Your task to perform on an android device: search for starred emails in the gmail app Image 0: 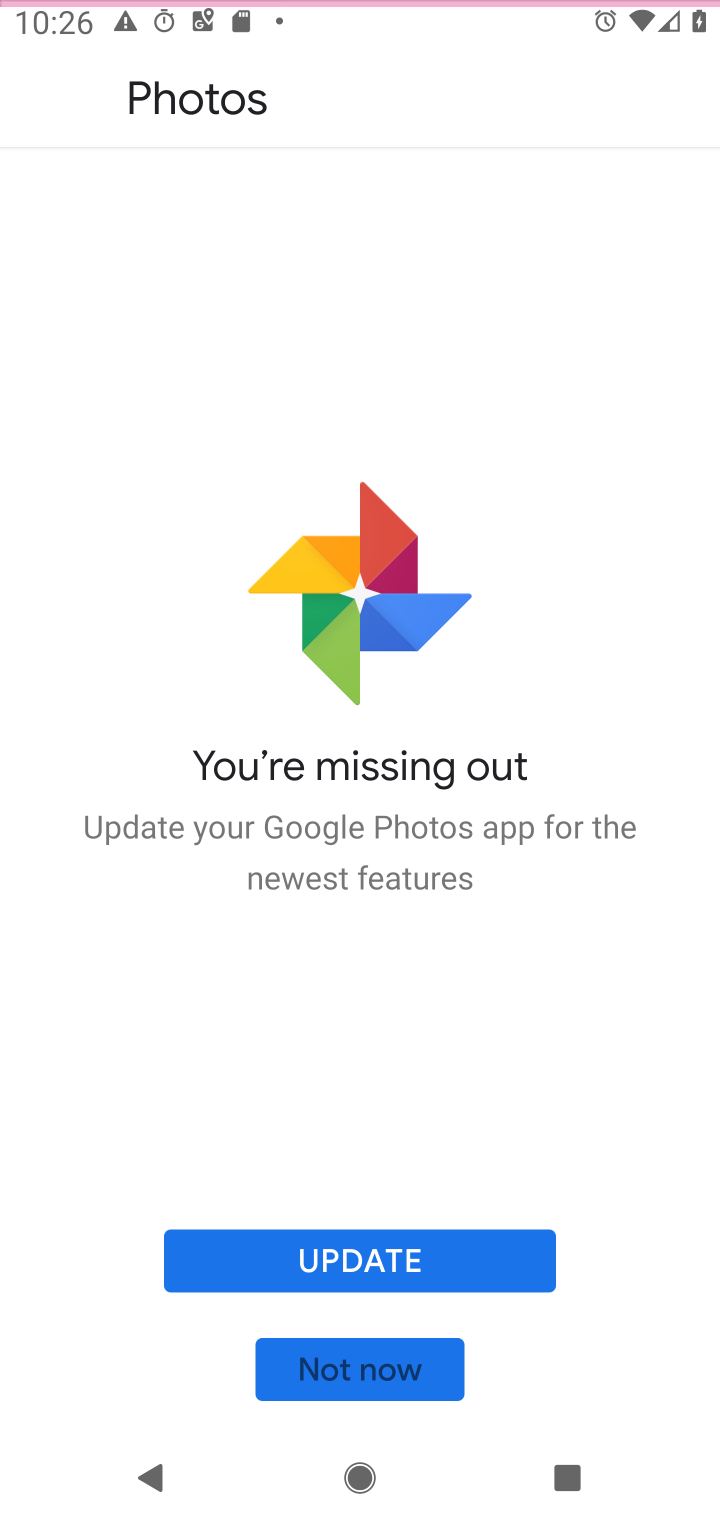
Step 0: press home button
Your task to perform on an android device: search for starred emails in the gmail app Image 1: 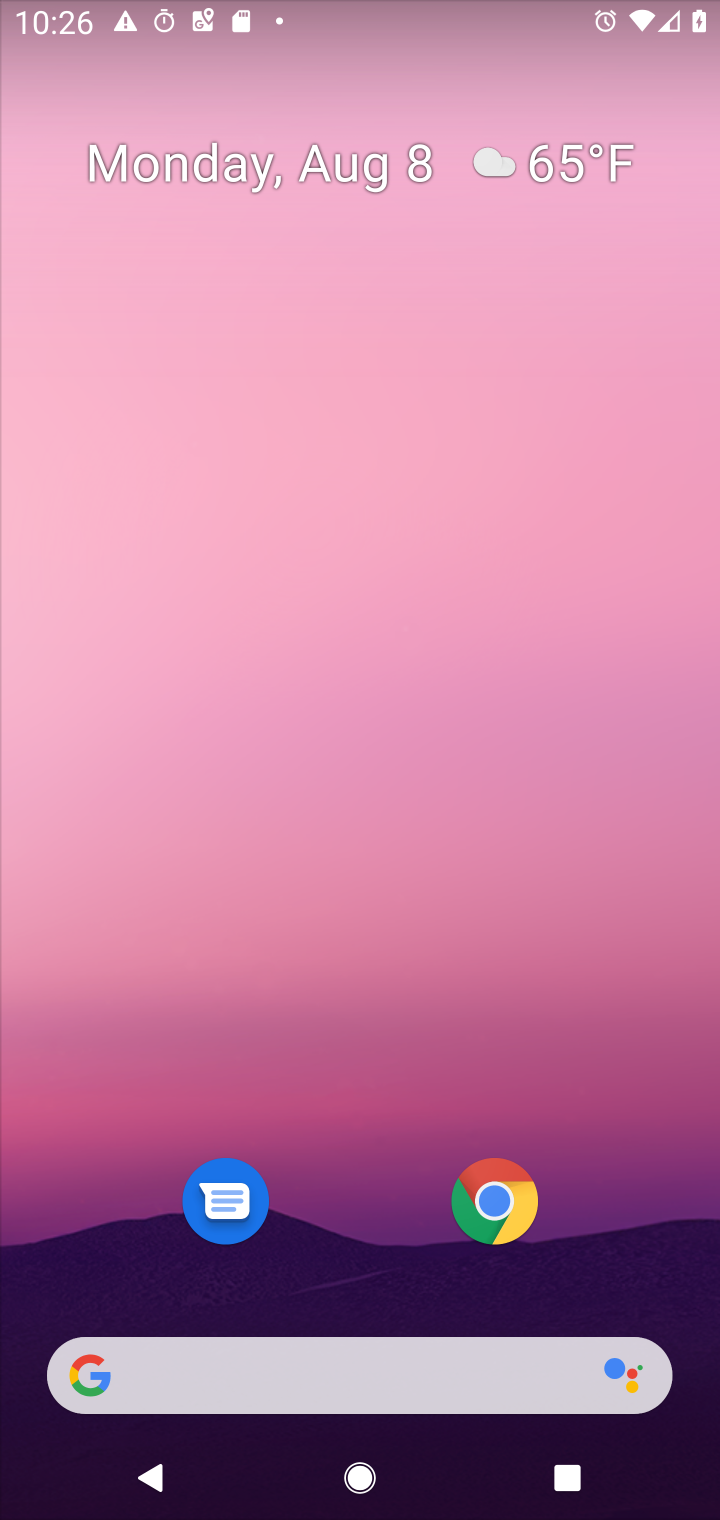
Step 1: drag from (617, 1236) to (582, 316)
Your task to perform on an android device: search for starred emails in the gmail app Image 2: 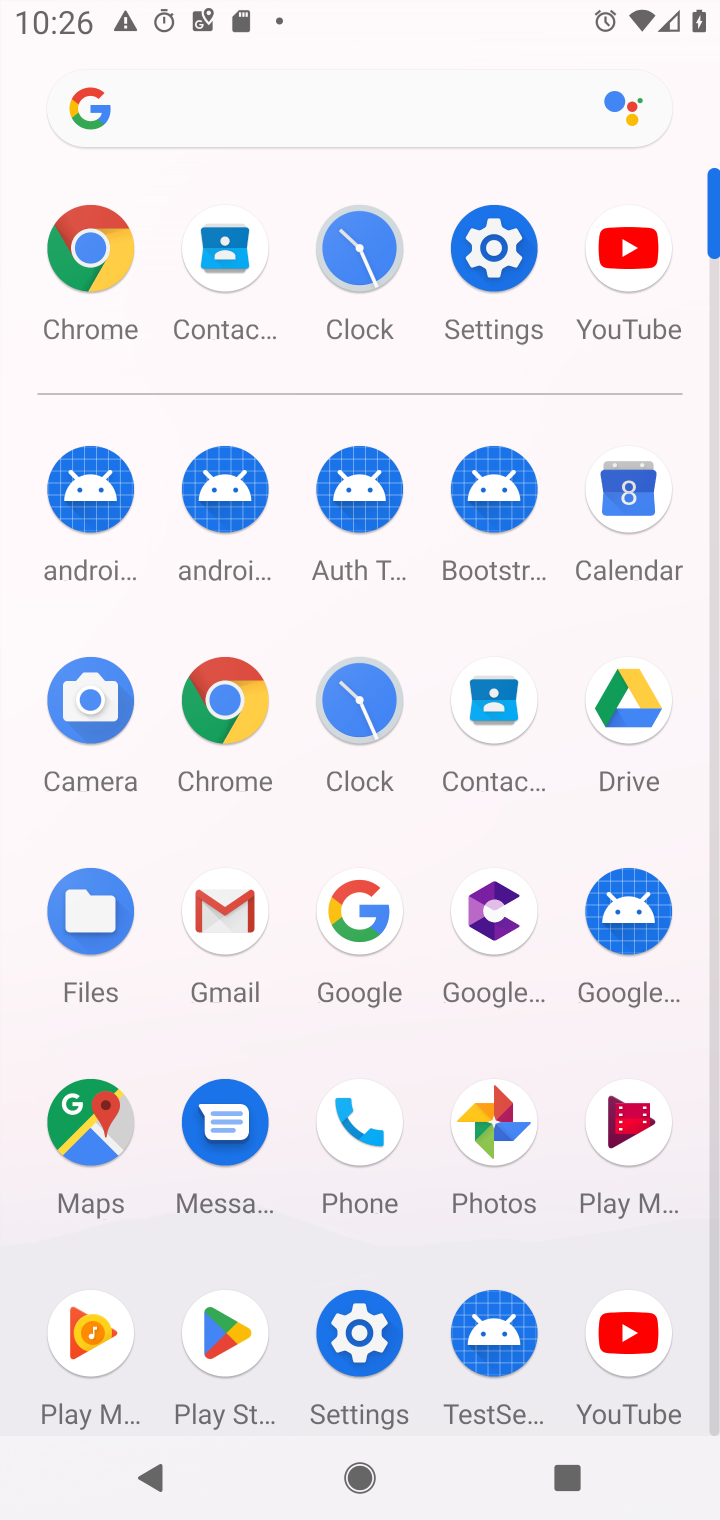
Step 2: click (221, 924)
Your task to perform on an android device: search for starred emails in the gmail app Image 3: 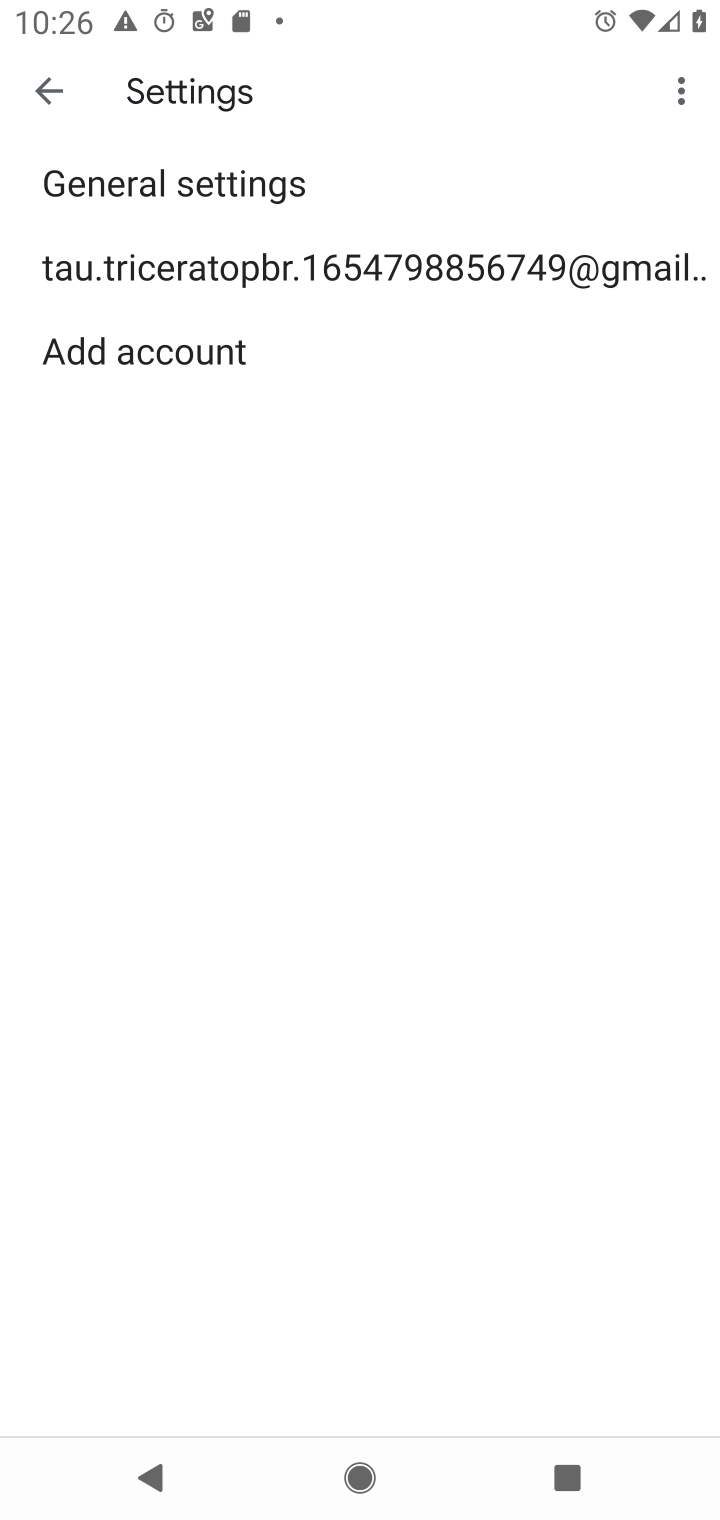
Step 3: press back button
Your task to perform on an android device: search for starred emails in the gmail app Image 4: 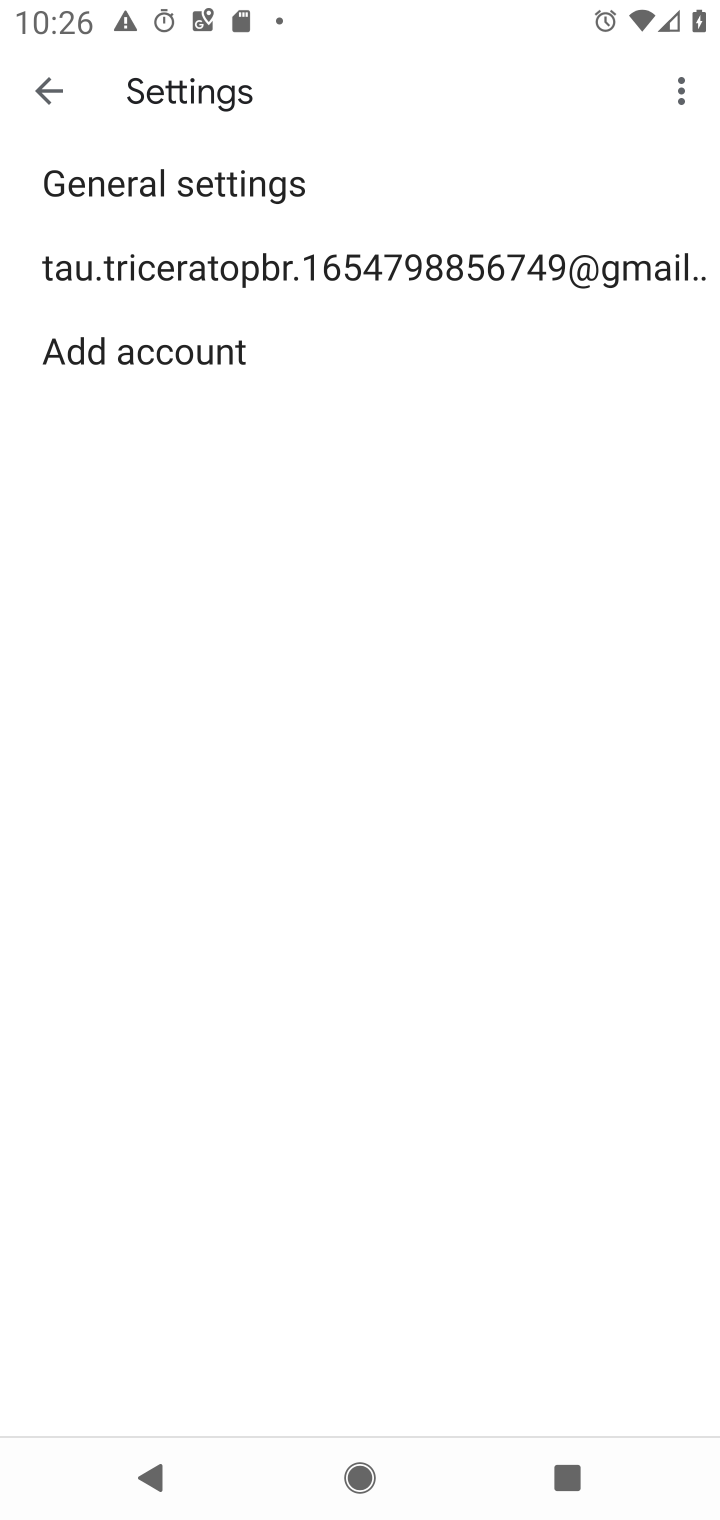
Step 4: press back button
Your task to perform on an android device: search for starred emails in the gmail app Image 5: 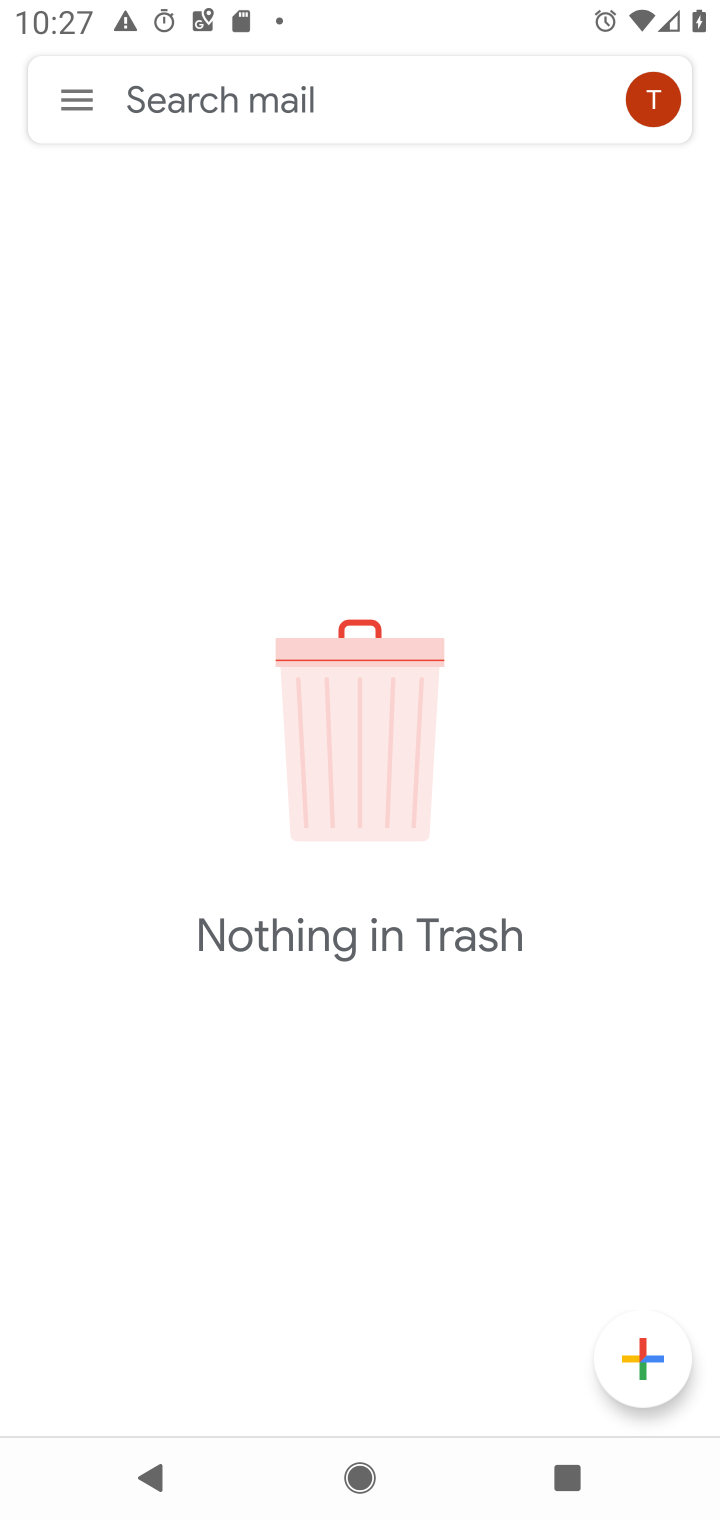
Step 5: click (72, 104)
Your task to perform on an android device: search for starred emails in the gmail app Image 6: 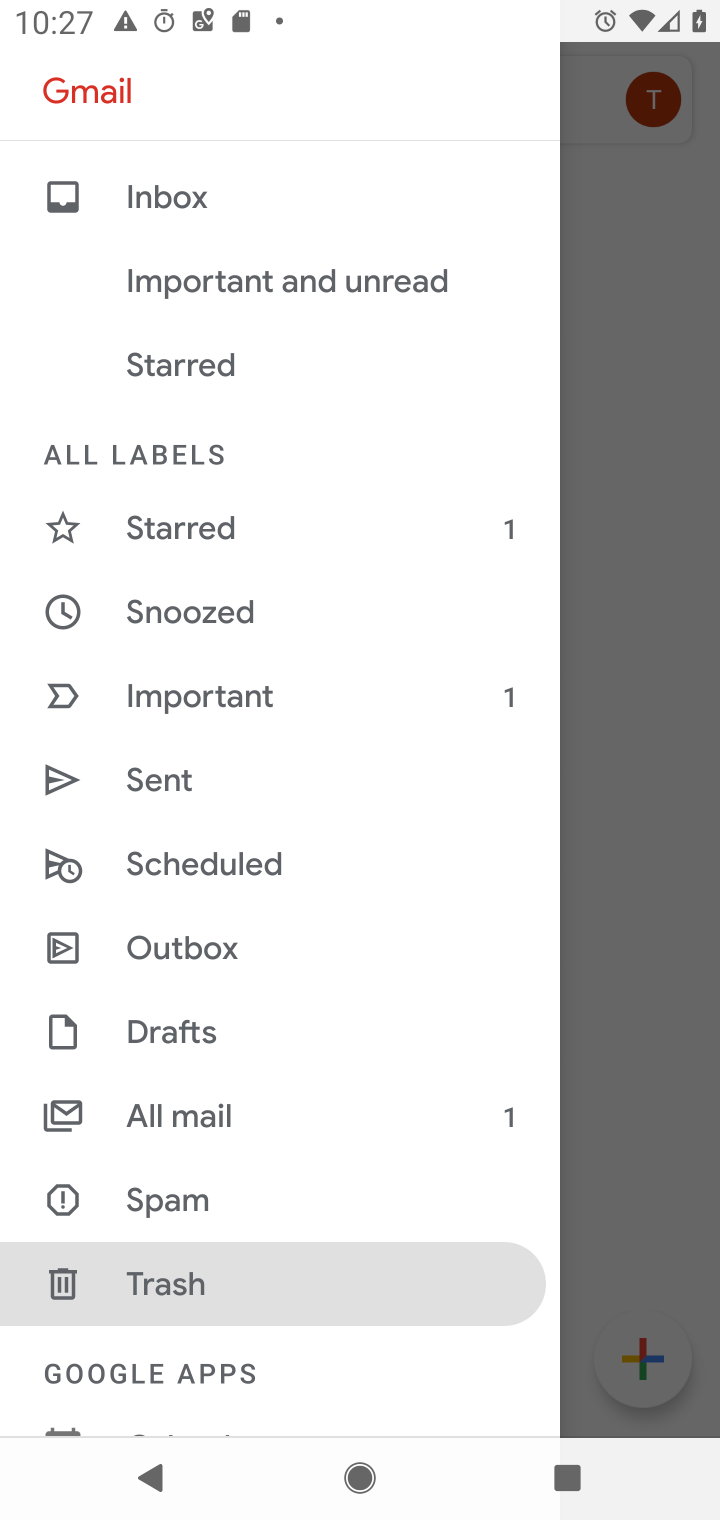
Step 6: click (239, 542)
Your task to perform on an android device: search for starred emails in the gmail app Image 7: 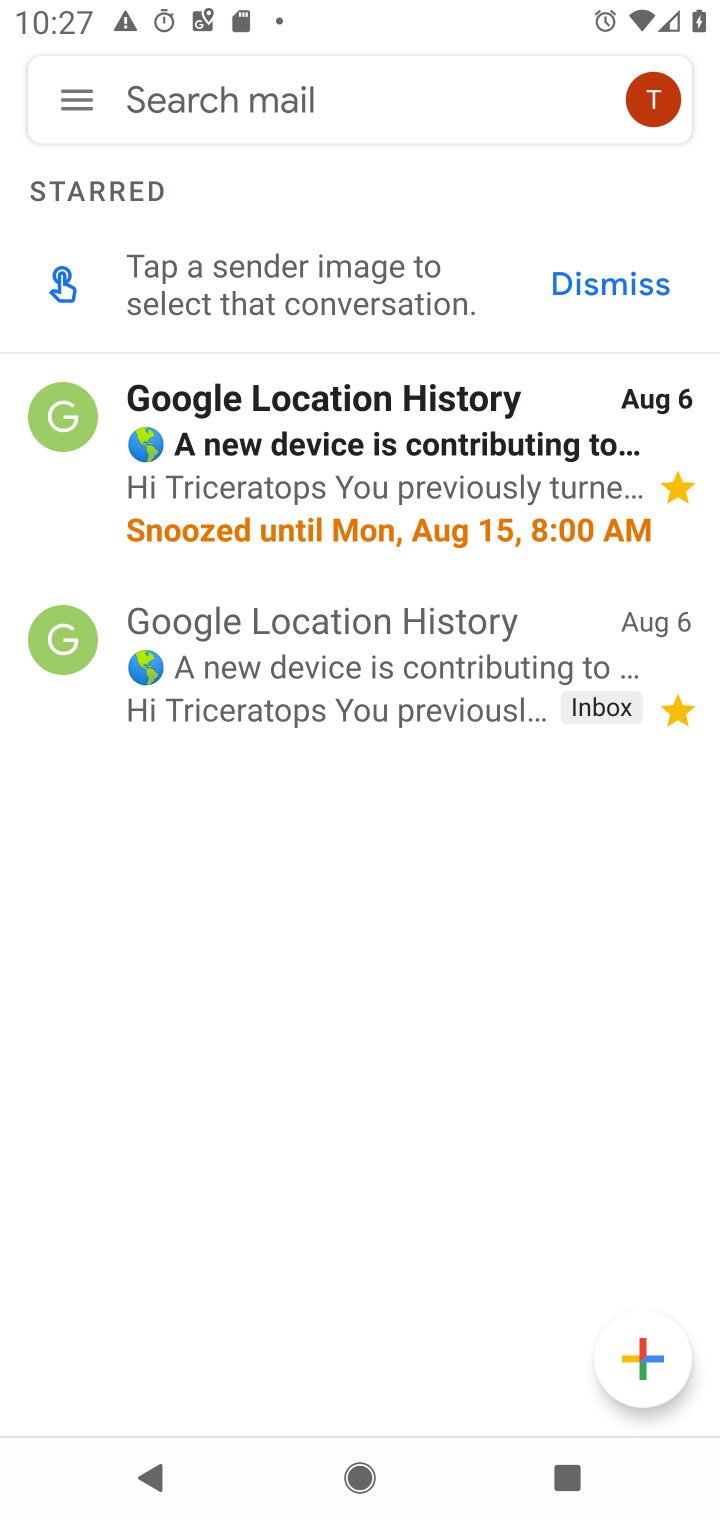
Step 7: task complete